Your task to perform on an android device: delete the emails in spam in the gmail app Image 0: 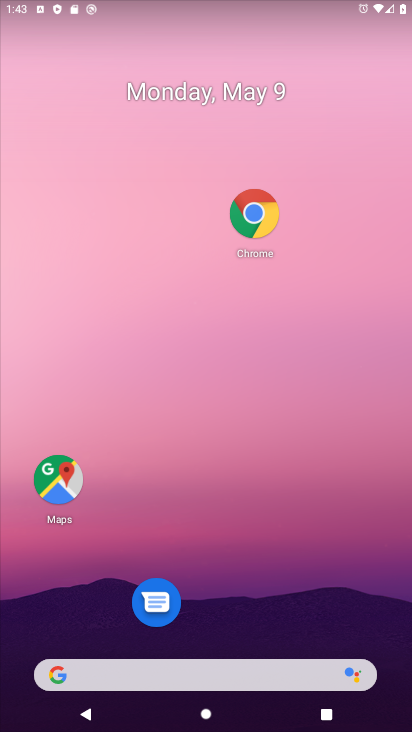
Step 0: drag from (303, 610) to (192, 160)
Your task to perform on an android device: delete the emails in spam in the gmail app Image 1: 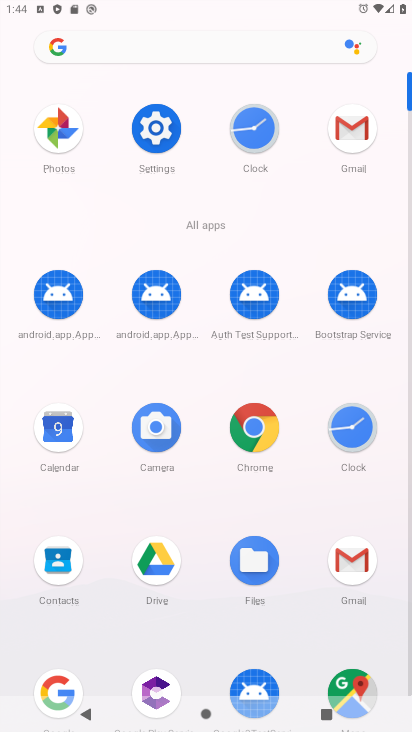
Step 1: click (354, 149)
Your task to perform on an android device: delete the emails in spam in the gmail app Image 2: 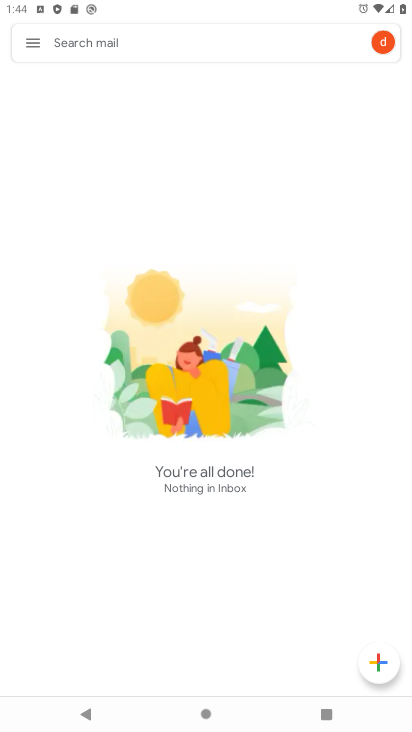
Step 2: task complete